Your task to perform on an android device: allow cookies in the chrome app Image 0: 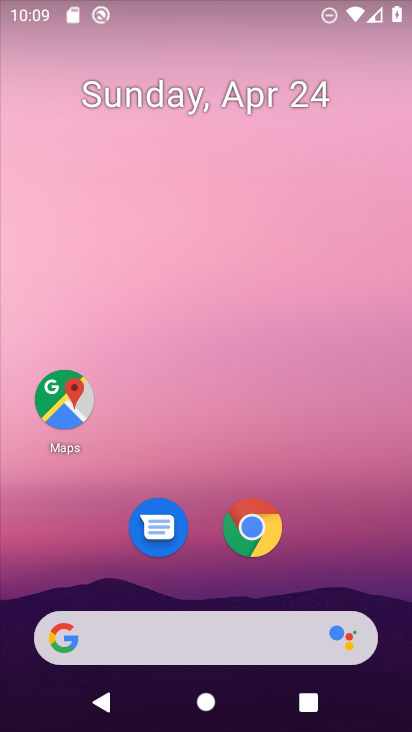
Step 0: drag from (396, 617) to (311, 42)
Your task to perform on an android device: allow cookies in the chrome app Image 1: 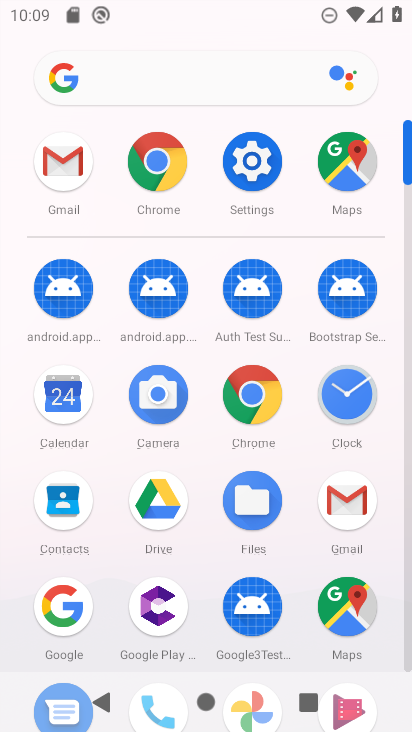
Step 1: click (254, 410)
Your task to perform on an android device: allow cookies in the chrome app Image 2: 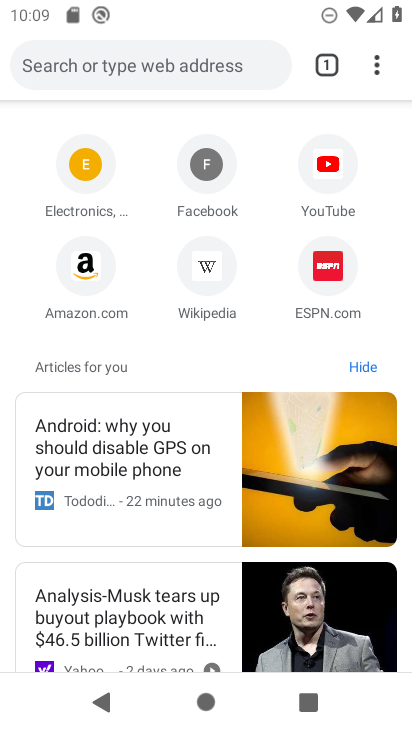
Step 2: click (379, 62)
Your task to perform on an android device: allow cookies in the chrome app Image 3: 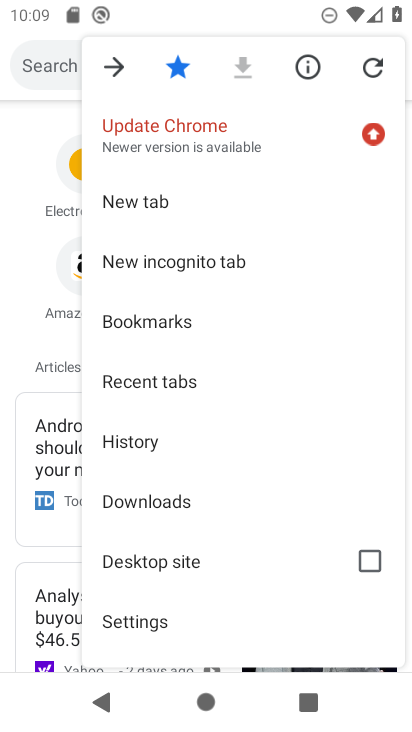
Step 3: click (163, 626)
Your task to perform on an android device: allow cookies in the chrome app Image 4: 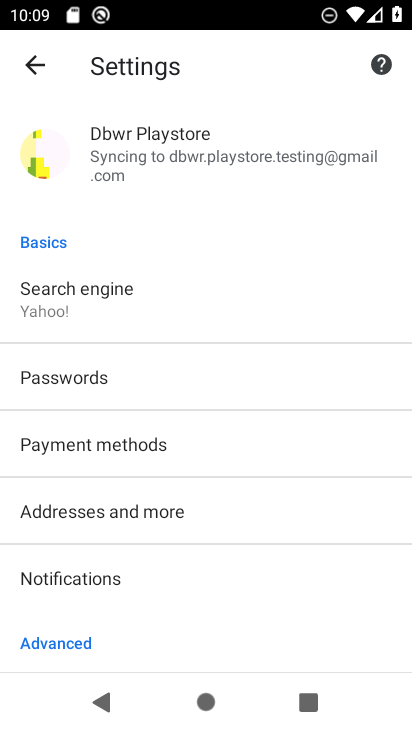
Step 4: drag from (149, 636) to (221, 234)
Your task to perform on an android device: allow cookies in the chrome app Image 5: 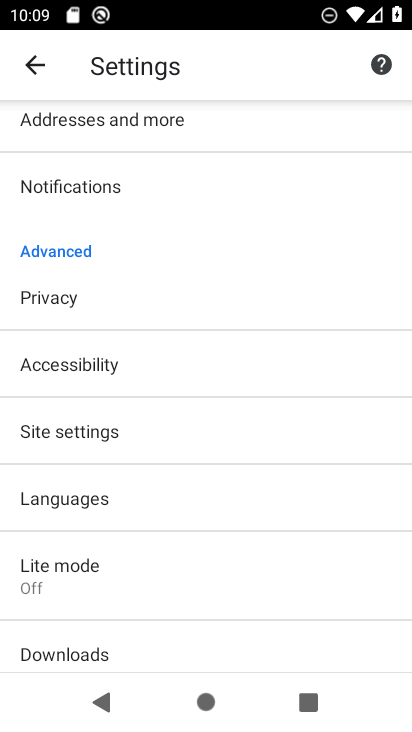
Step 5: click (77, 431)
Your task to perform on an android device: allow cookies in the chrome app Image 6: 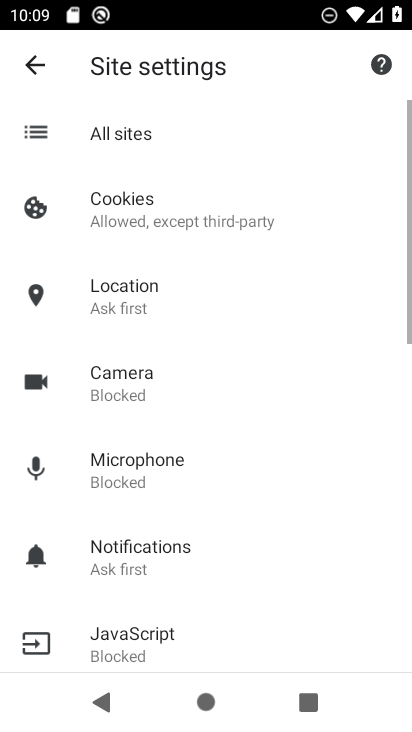
Step 6: click (164, 214)
Your task to perform on an android device: allow cookies in the chrome app Image 7: 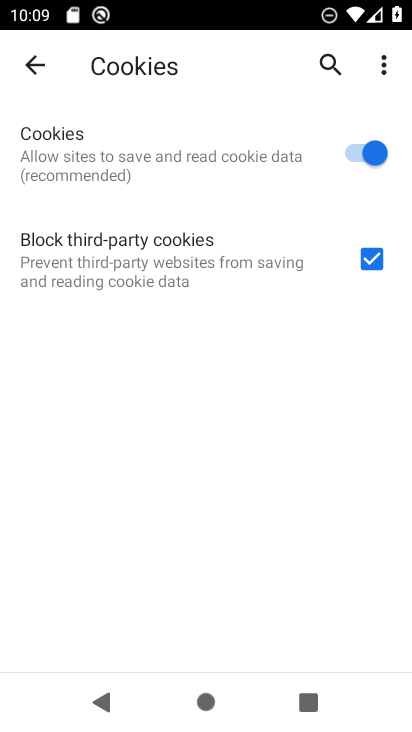
Step 7: task complete